Your task to perform on an android device: check android version Image 0: 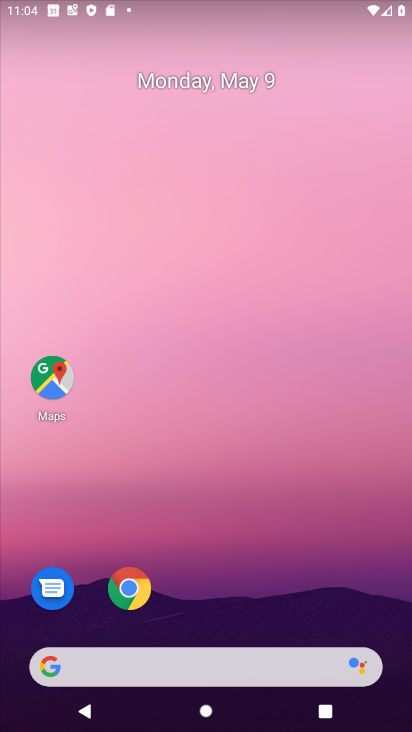
Step 0: drag from (195, 638) to (98, 60)
Your task to perform on an android device: check android version Image 1: 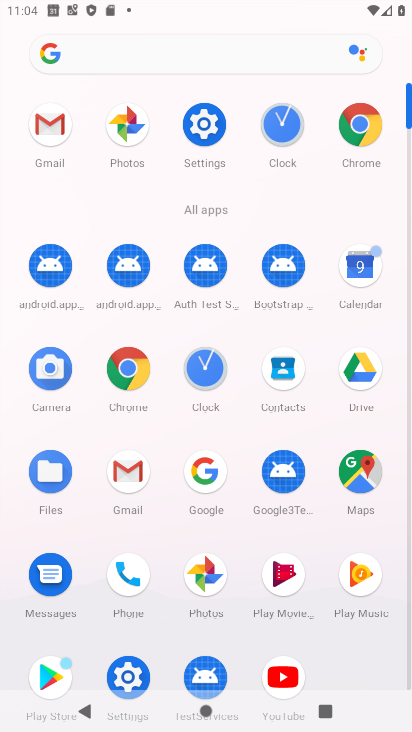
Step 1: click (207, 143)
Your task to perform on an android device: check android version Image 2: 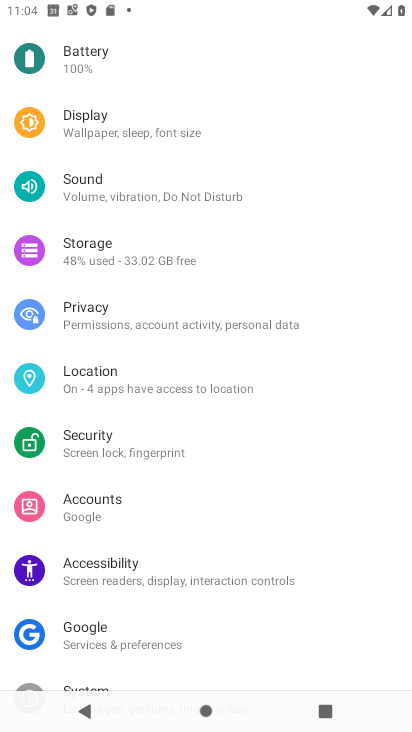
Step 2: drag from (239, 633) to (153, 91)
Your task to perform on an android device: check android version Image 3: 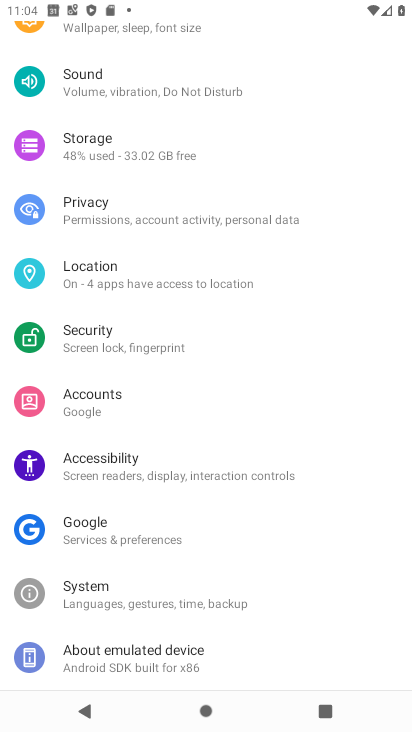
Step 3: click (136, 677)
Your task to perform on an android device: check android version Image 4: 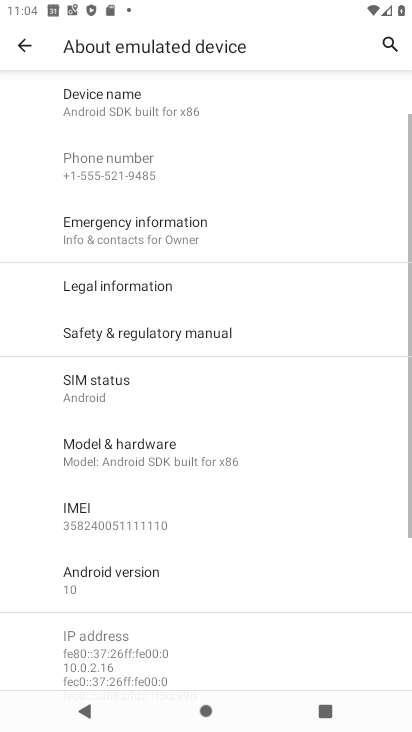
Step 4: click (112, 661)
Your task to perform on an android device: check android version Image 5: 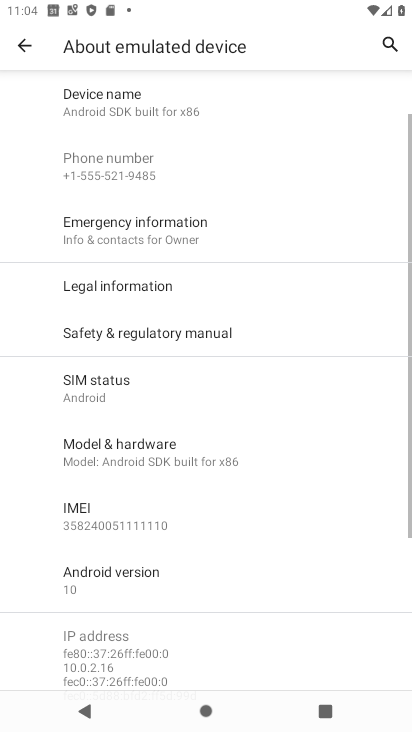
Step 5: click (96, 581)
Your task to perform on an android device: check android version Image 6: 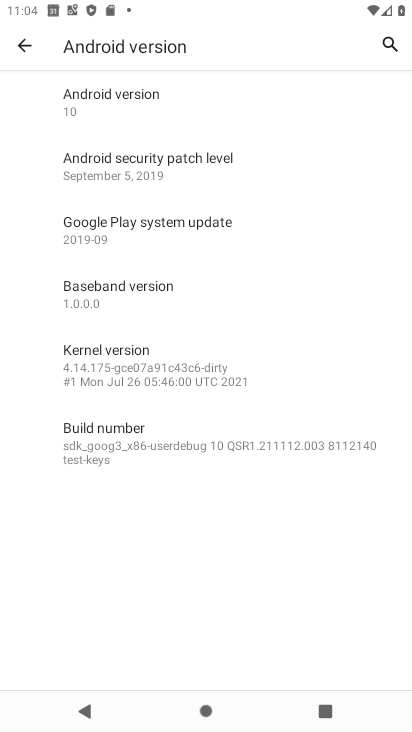
Step 6: click (131, 577)
Your task to perform on an android device: check android version Image 7: 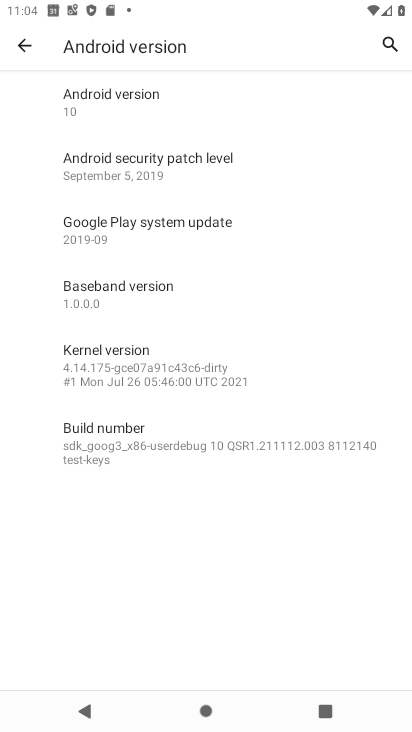
Step 7: click (136, 131)
Your task to perform on an android device: check android version Image 8: 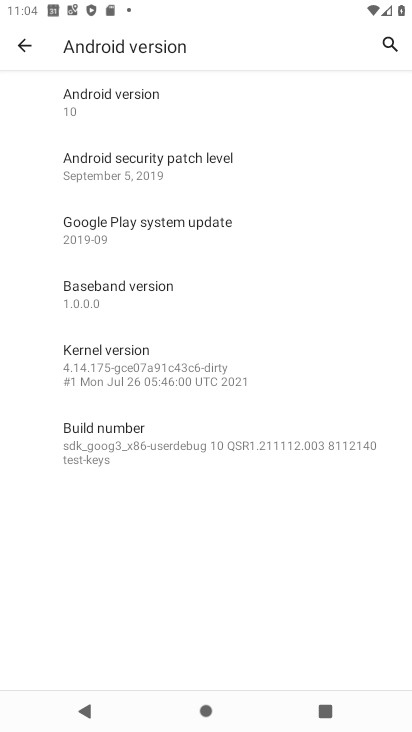
Step 8: task complete